Your task to perform on an android device: remove spam from my inbox in the gmail app Image 0: 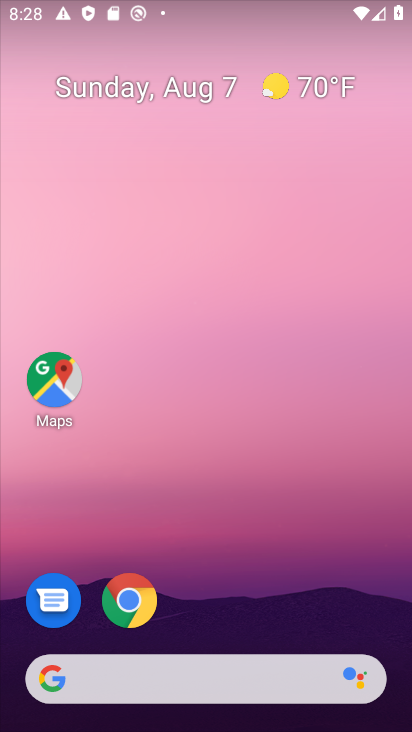
Step 0: drag from (196, 497) to (262, 20)
Your task to perform on an android device: remove spam from my inbox in the gmail app Image 1: 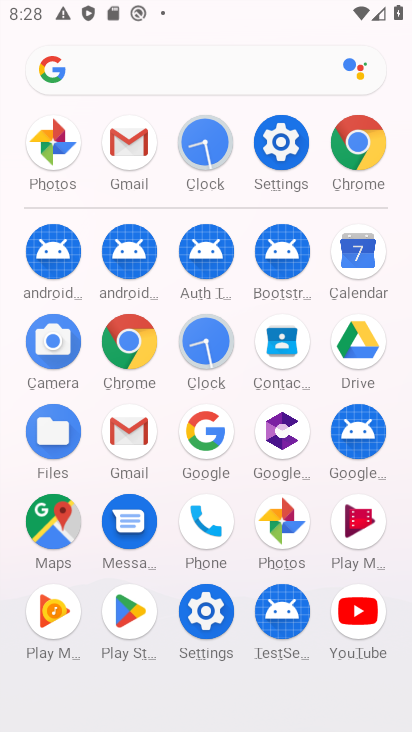
Step 1: click (127, 147)
Your task to perform on an android device: remove spam from my inbox in the gmail app Image 2: 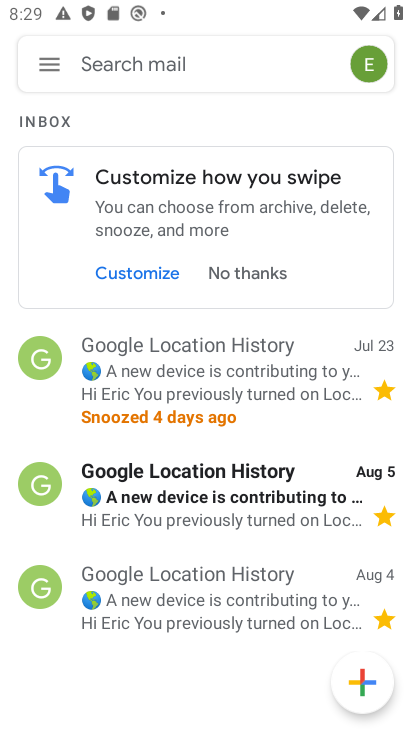
Step 2: click (46, 65)
Your task to perform on an android device: remove spam from my inbox in the gmail app Image 3: 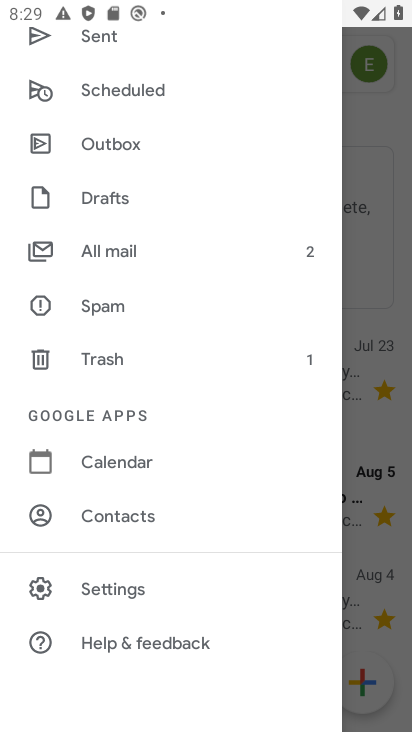
Step 3: click (119, 308)
Your task to perform on an android device: remove spam from my inbox in the gmail app Image 4: 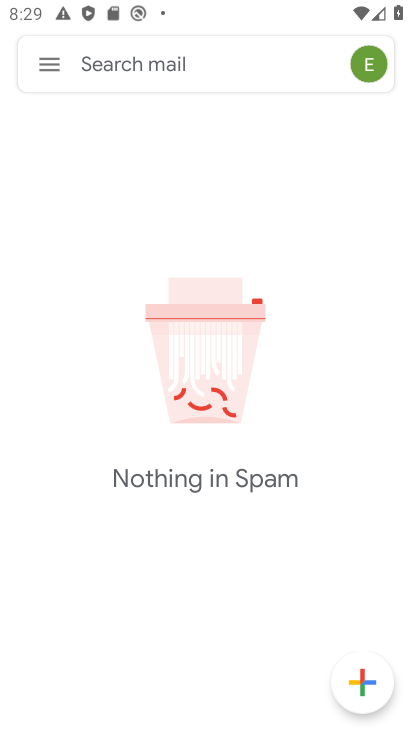
Step 4: task complete